Your task to perform on an android device: Open the Play Movies app and select the watchlist tab. Image 0: 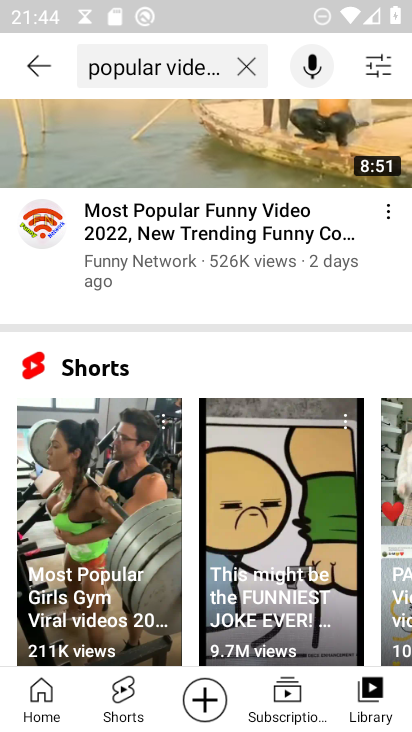
Step 0: press home button
Your task to perform on an android device: Open the Play Movies app and select the watchlist tab. Image 1: 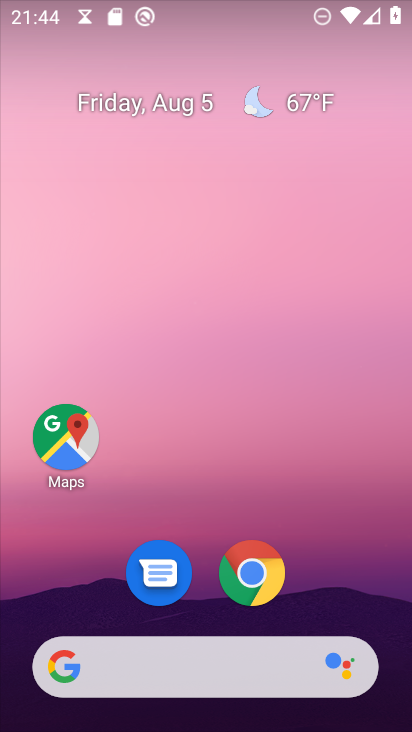
Step 1: drag from (192, 660) to (326, 83)
Your task to perform on an android device: Open the Play Movies app and select the watchlist tab. Image 2: 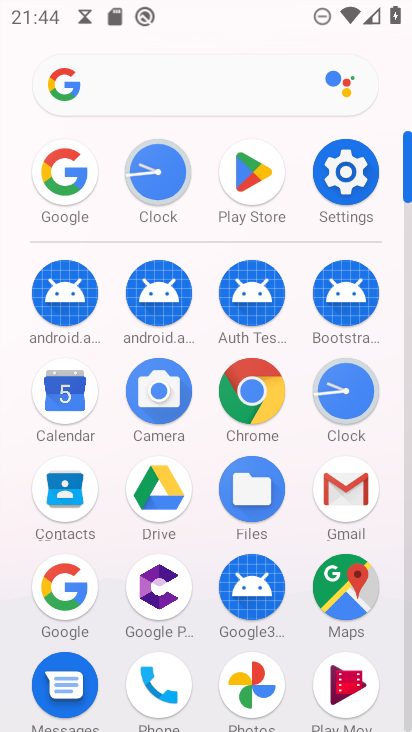
Step 2: drag from (193, 622) to (223, 293)
Your task to perform on an android device: Open the Play Movies app and select the watchlist tab. Image 3: 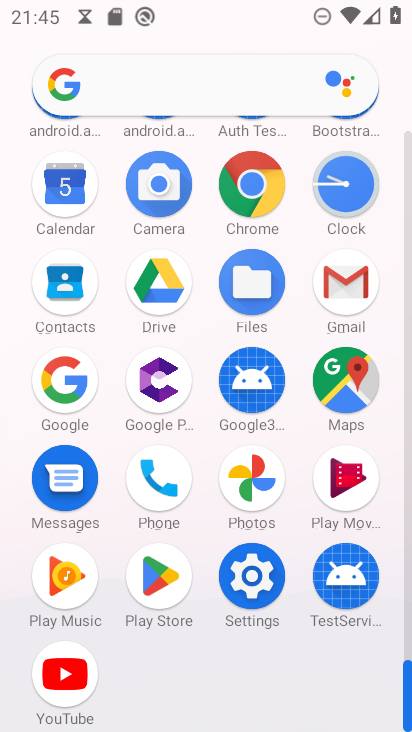
Step 3: click (347, 481)
Your task to perform on an android device: Open the Play Movies app and select the watchlist tab. Image 4: 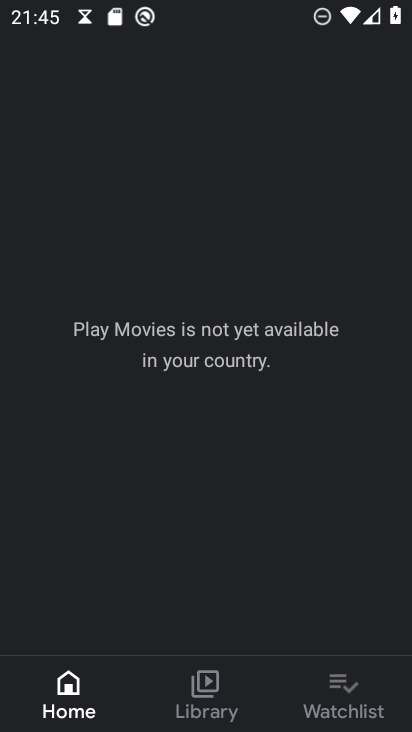
Step 4: click (338, 686)
Your task to perform on an android device: Open the Play Movies app and select the watchlist tab. Image 5: 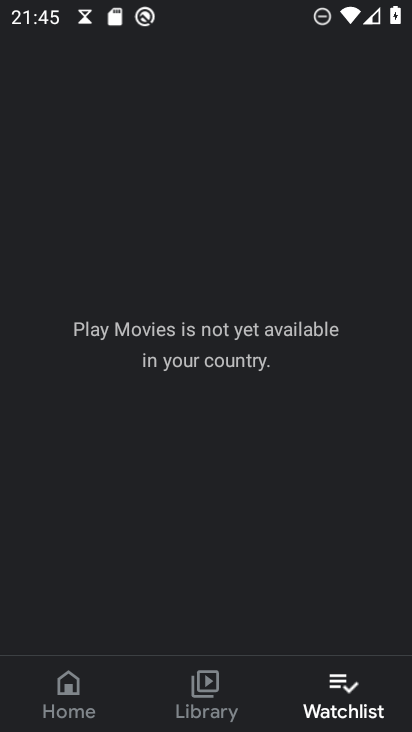
Step 5: task complete